Your task to perform on an android device: toggle notification dots Image 0: 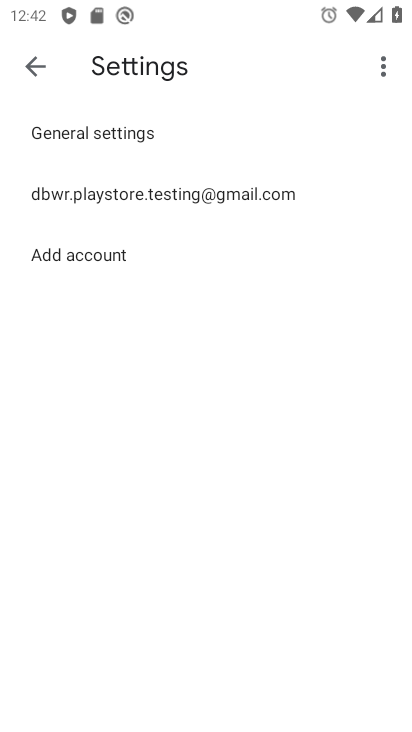
Step 0: press home button
Your task to perform on an android device: toggle notification dots Image 1: 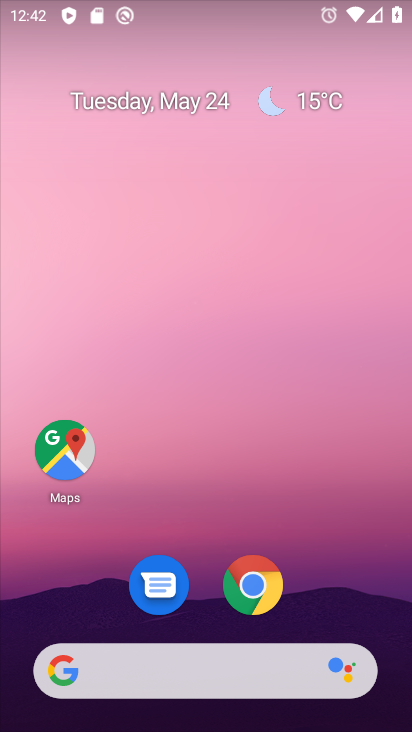
Step 1: drag from (231, 487) to (213, 47)
Your task to perform on an android device: toggle notification dots Image 2: 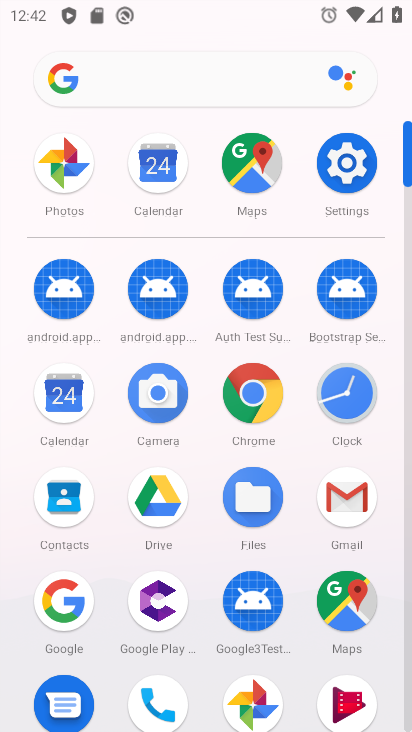
Step 2: click (345, 152)
Your task to perform on an android device: toggle notification dots Image 3: 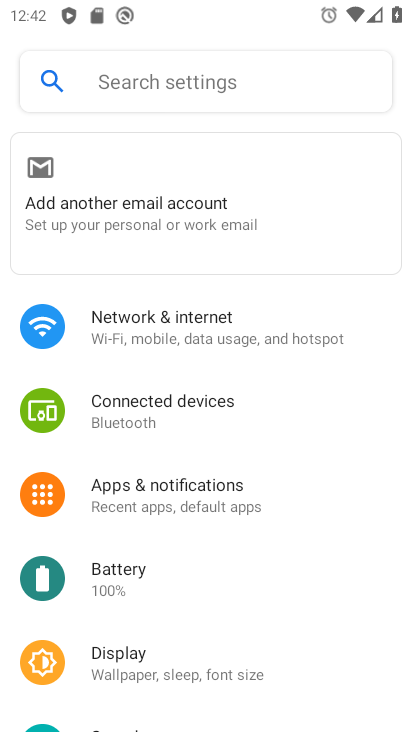
Step 3: click (214, 489)
Your task to perform on an android device: toggle notification dots Image 4: 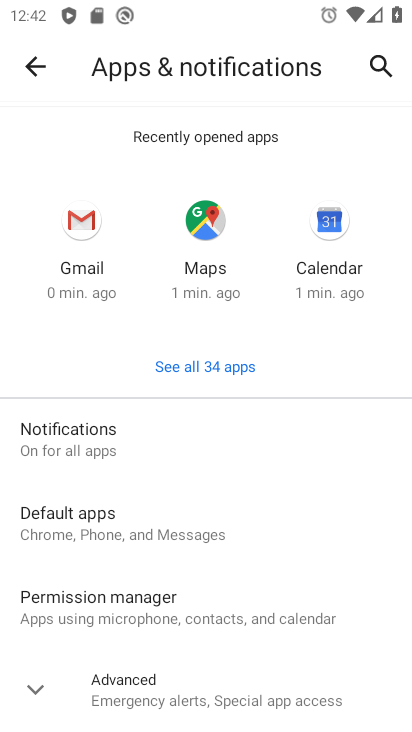
Step 4: drag from (264, 506) to (272, 188)
Your task to perform on an android device: toggle notification dots Image 5: 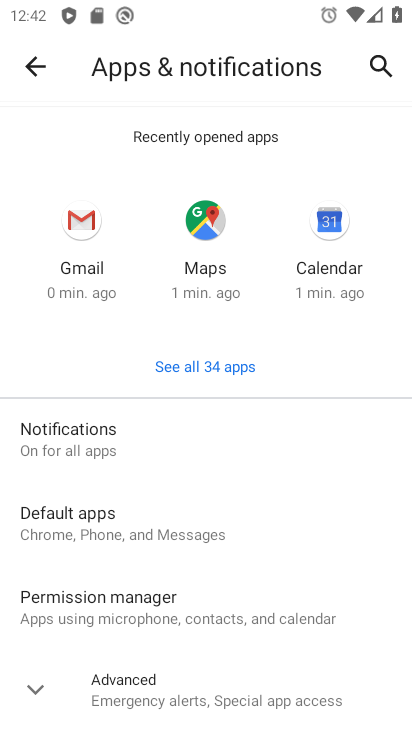
Step 5: click (33, 694)
Your task to perform on an android device: toggle notification dots Image 6: 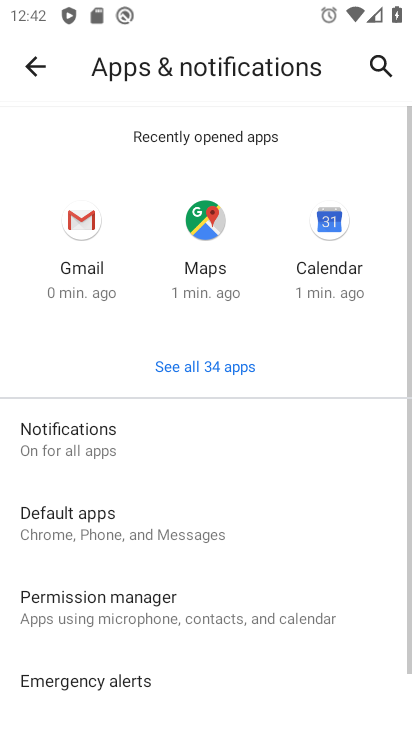
Step 6: drag from (204, 630) to (230, 280)
Your task to perform on an android device: toggle notification dots Image 7: 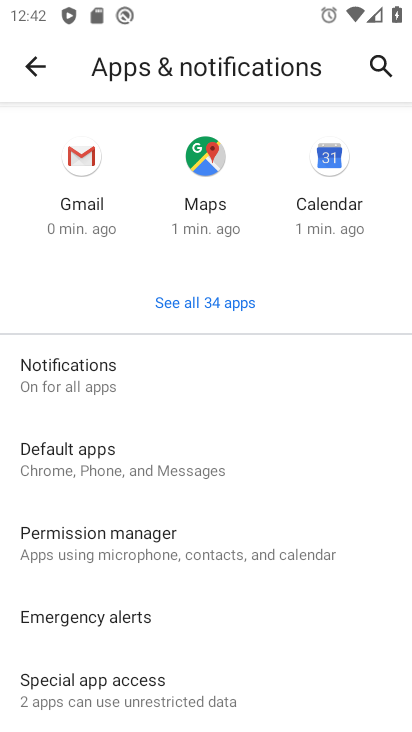
Step 7: click (144, 368)
Your task to perform on an android device: toggle notification dots Image 8: 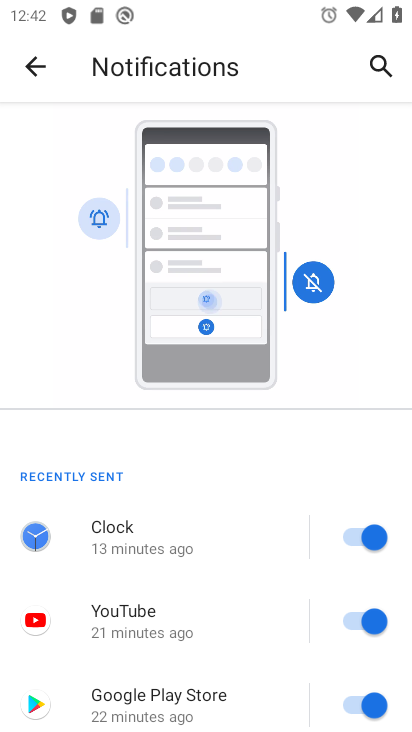
Step 8: drag from (235, 618) to (234, 173)
Your task to perform on an android device: toggle notification dots Image 9: 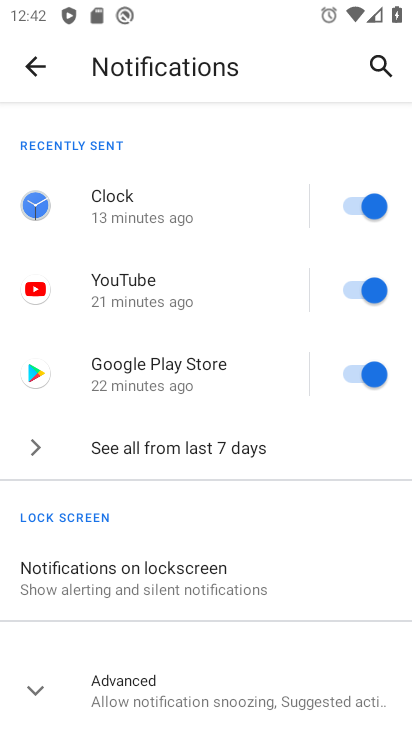
Step 9: click (41, 681)
Your task to perform on an android device: toggle notification dots Image 10: 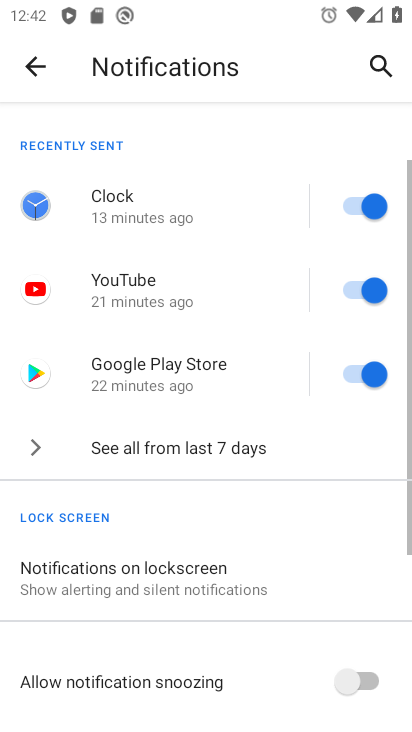
Step 10: drag from (175, 648) to (175, 223)
Your task to perform on an android device: toggle notification dots Image 11: 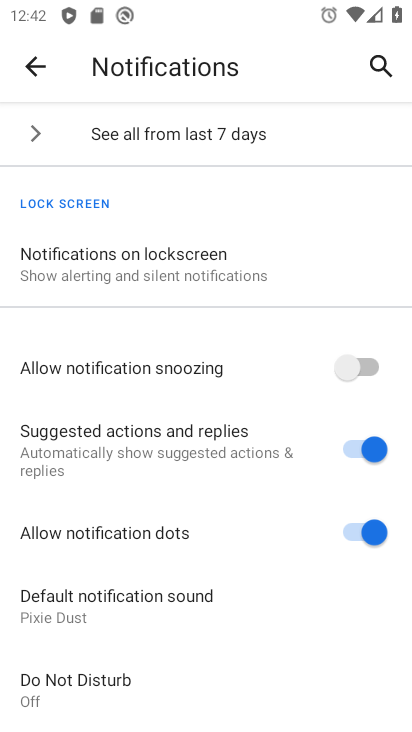
Step 11: click (357, 525)
Your task to perform on an android device: toggle notification dots Image 12: 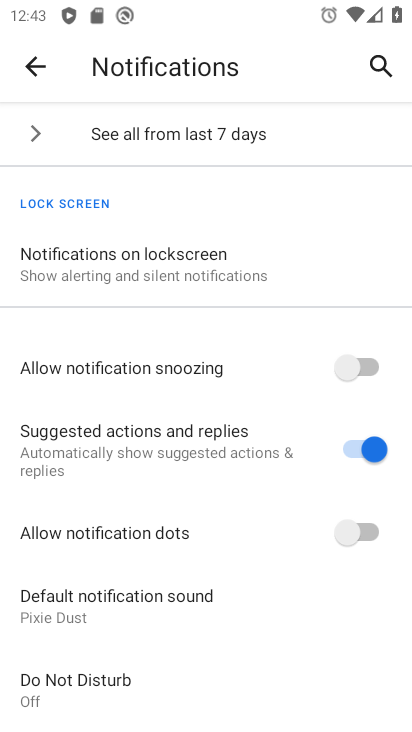
Step 12: task complete